Your task to perform on an android device: Go to network settings Image 0: 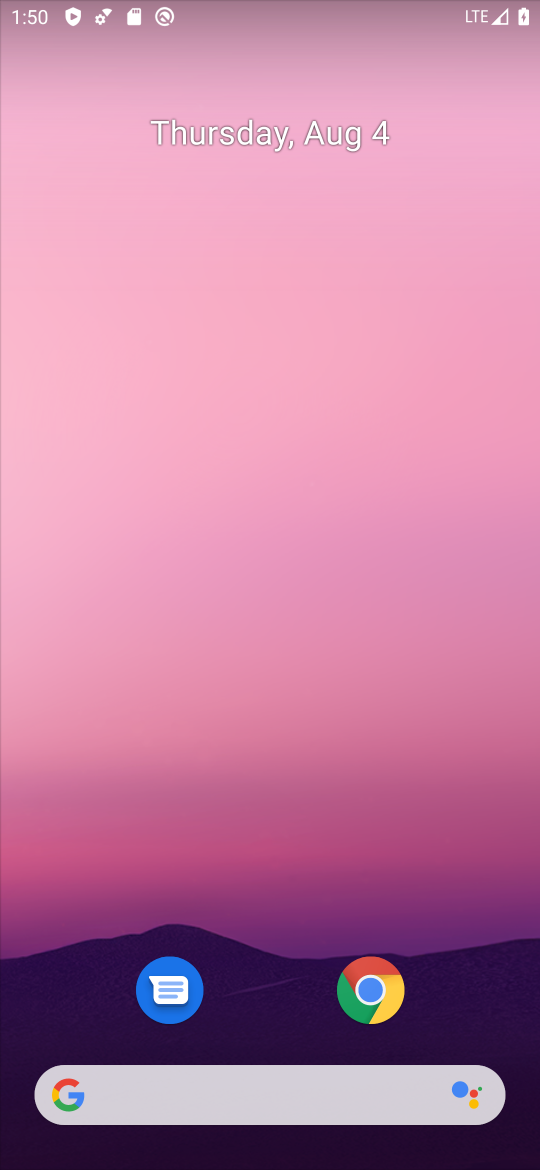
Step 0: drag from (280, 985) to (227, 1)
Your task to perform on an android device: Go to network settings Image 1: 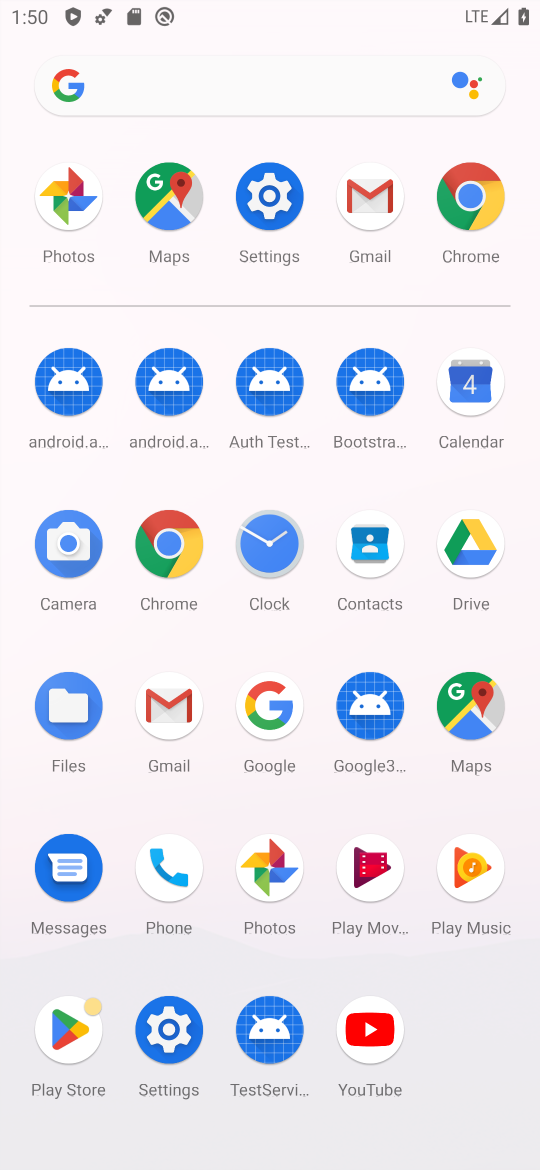
Step 1: click (252, 202)
Your task to perform on an android device: Go to network settings Image 2: 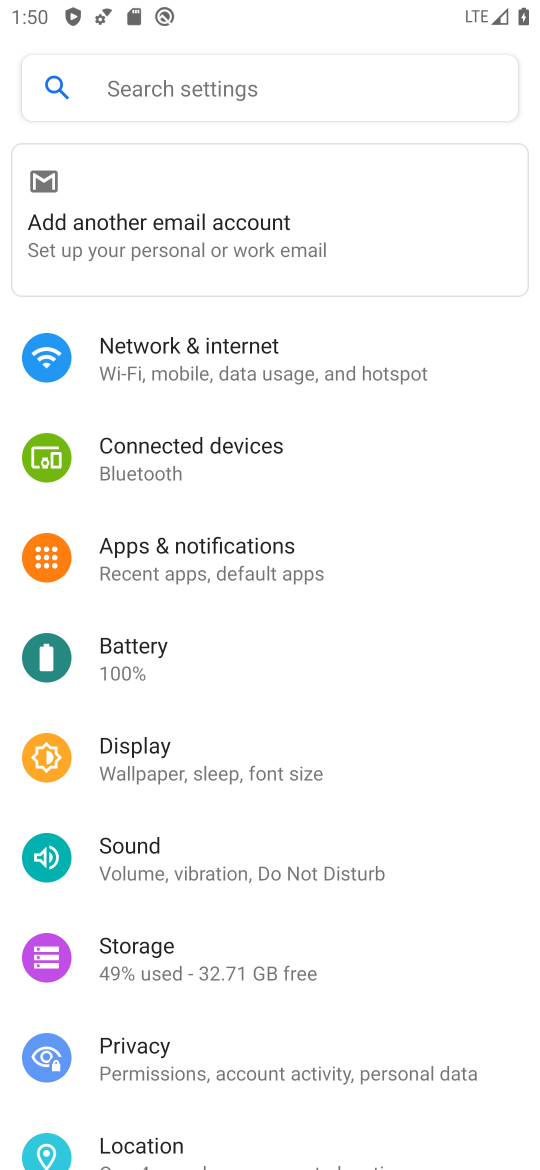
Step 2: click (355, 417)
Your task to perform on an android device: Go to network settings Image 3: 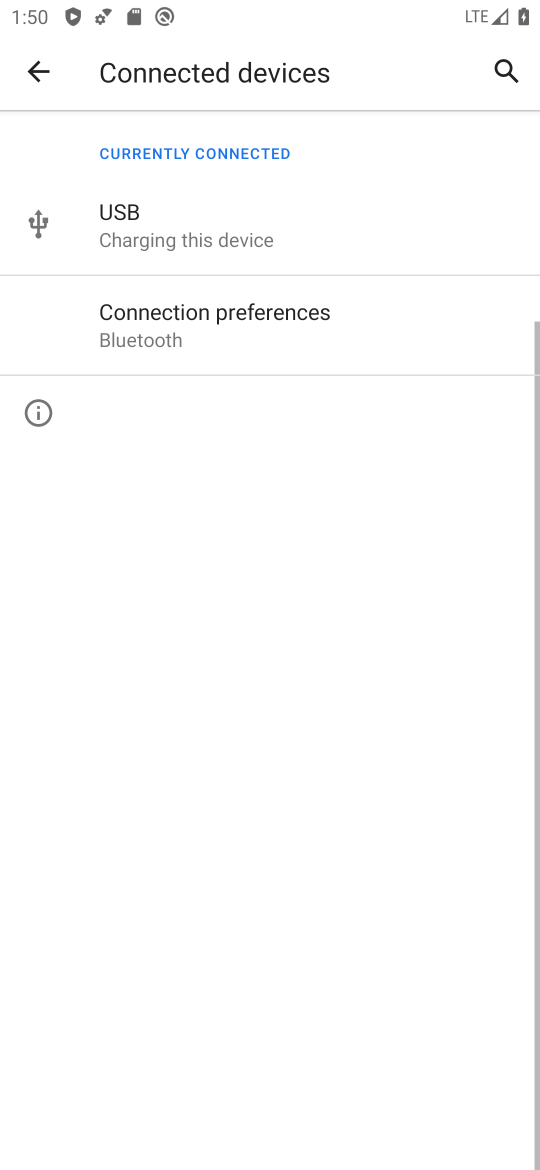
Step 3: task complete